Your task to perform on an android device: allow cookies in the chrome app Image 0: 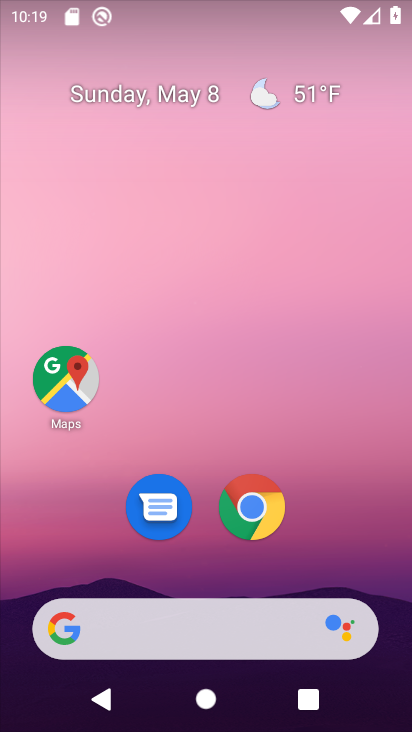
Step 0: click (249, 508)
Your task to perform on an android device: allow cookies in the chrome app Image 1: 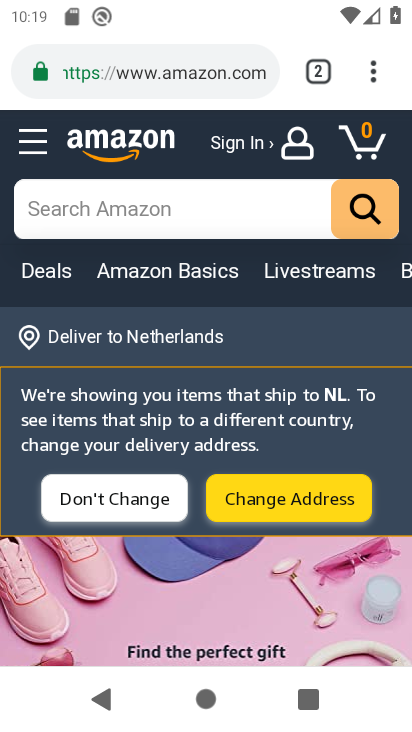
Step 1: click (374, 68)
Your task to perform on an android device: allow cookies in the chrome app Image 2: 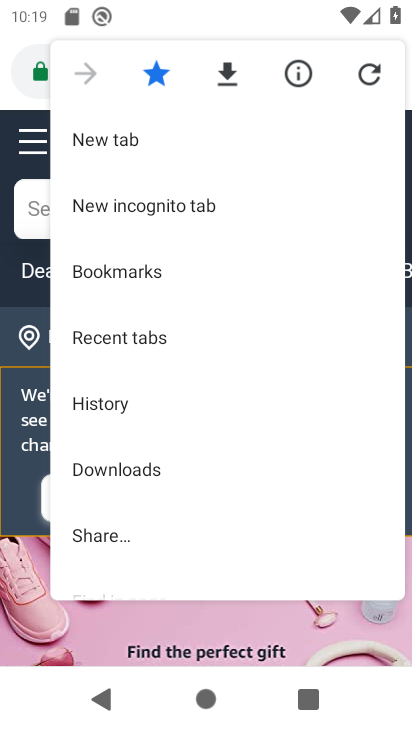
Step 2: drag from (172, 485) to (199, 130)
Your task to perform on an android device: allow cookies in the chrome app Image 3: 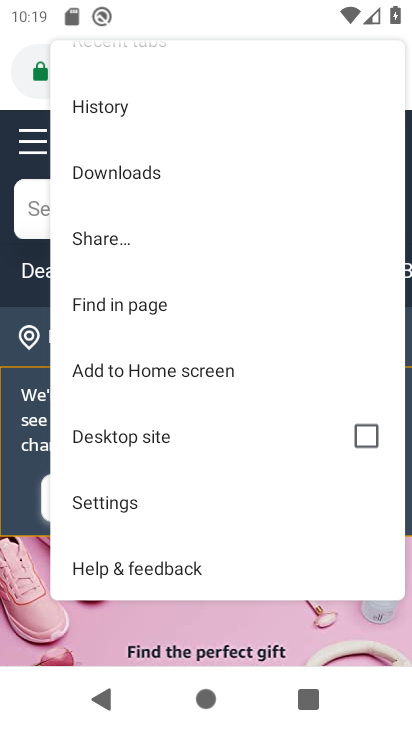
Step 3: click (147, 508)
Your task to perform on an android device: allow cookies in the chrome app Image 4: 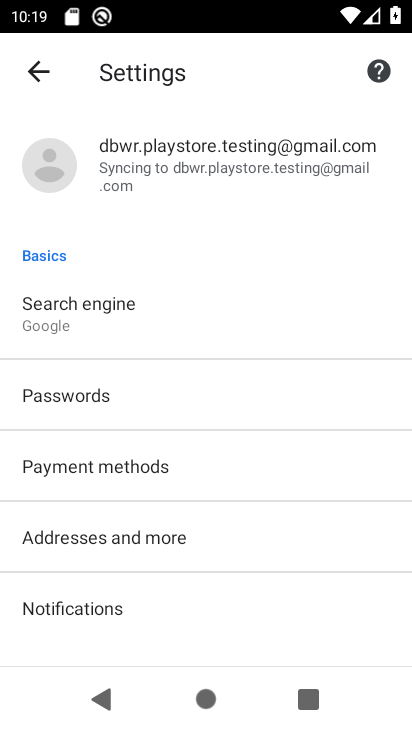
Step 4: drag from (207, 580) to (221, 182)
Your task to perform on an android device: allow cookies in the chrome app Image 5: 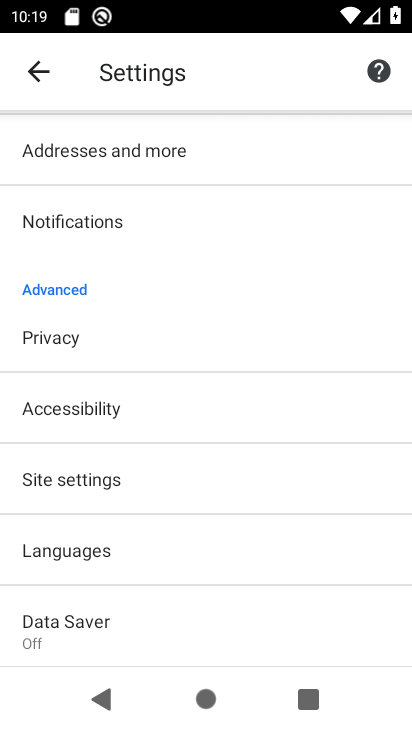
Step 5: click (127, 477)
Your task to perform on an android device: allow cookies in the chrome app Image 6: 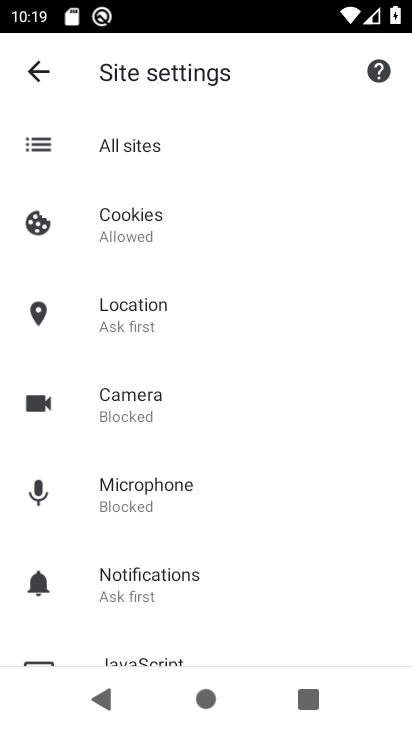
Step 6: click (184, 227)
Your task to perform on an android device: allow cookies in the chrome app Image 7: 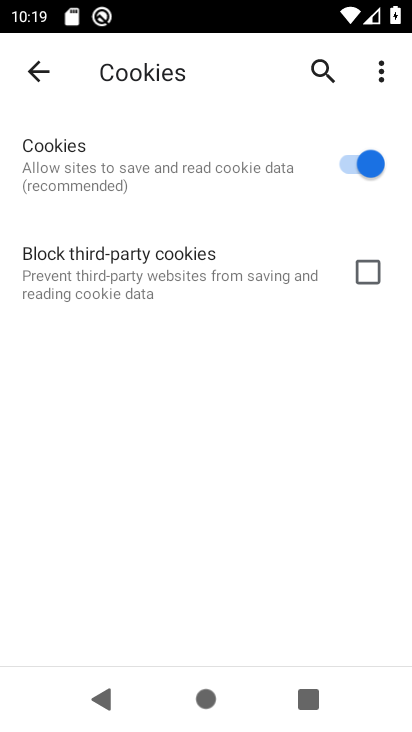
Step 7: task complete